Your task to perform on an android device: toggle pop-ups in chrome Image 0: 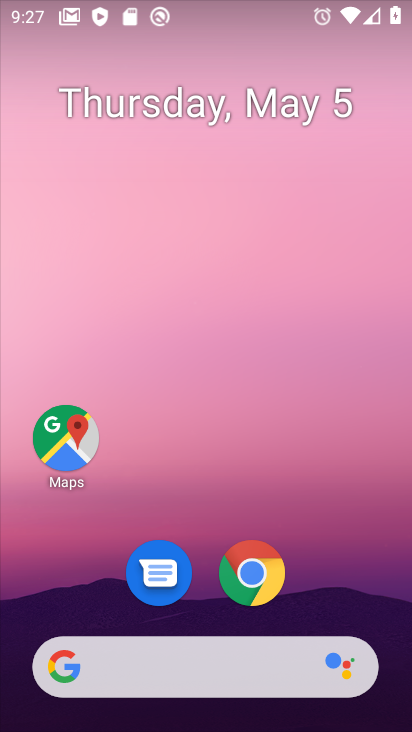
Step 0: click (240, 580)
Your task to perform on an android device: toggle pop-ups in chrome Image 1: 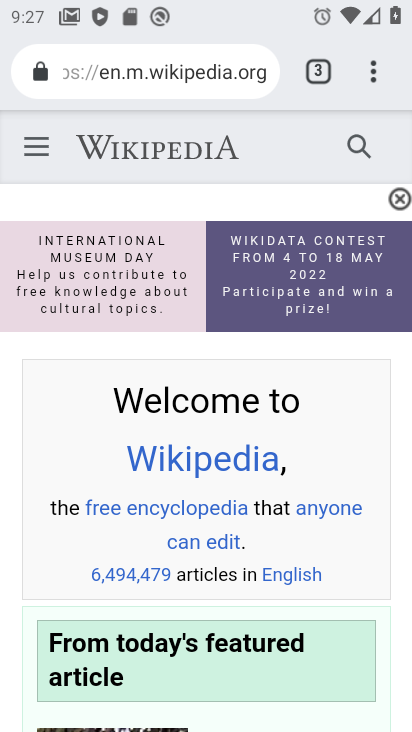
Step 1: drag from (377, 71) to (129, 558)
Your task to perform on an android device: toggle pop-ups in chrome Image 2: 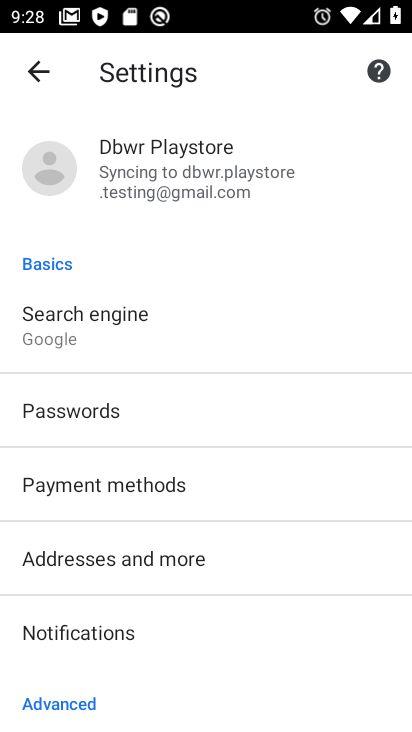
Step 2: drag from (293, 459) to (329, 128)
Your task to perform on an android device: toggle pop-ups in chrome Image 3: 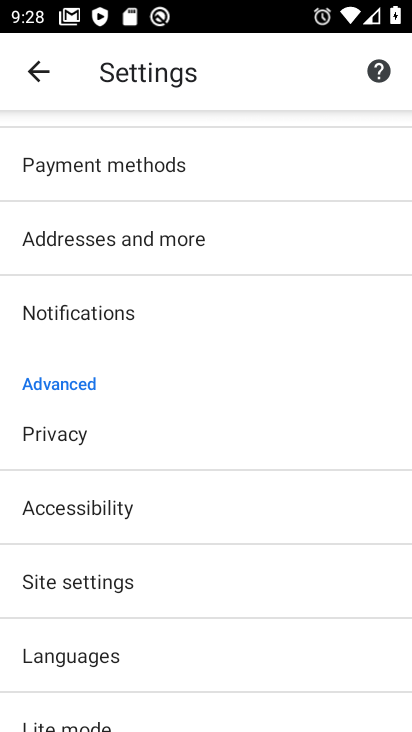
Step 3: click (124, 574)
Your task to perform on an android device: toggle pop-ups in chrome Image 4: 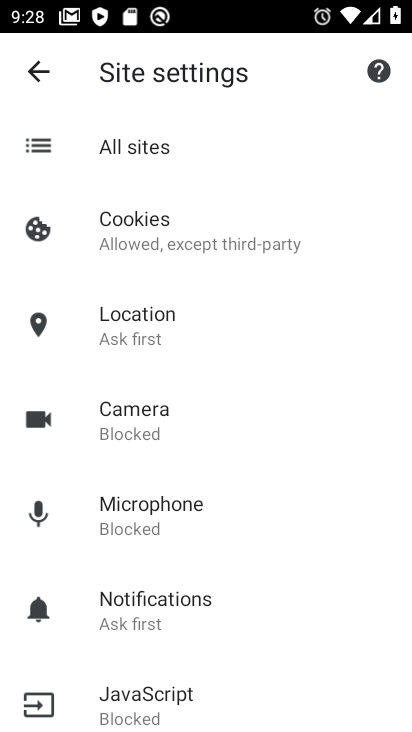
Step 4: drag from (139, 649) to (199, 190)
Your task to perform on an android device: toggle pop-ups in chrome Image 5: 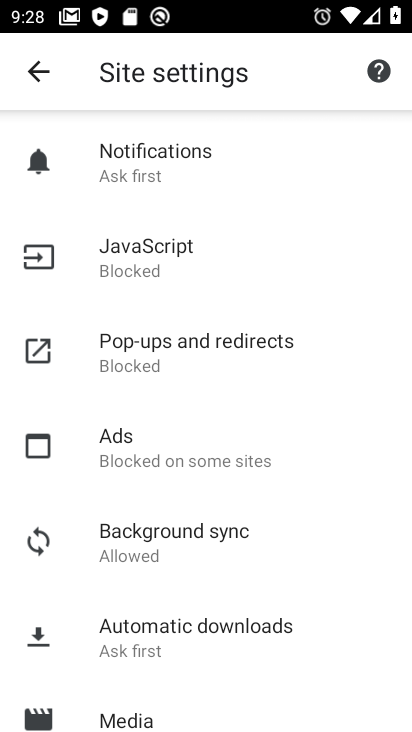
Step 5: click (180, 351)
Your task to perform on an android device: toggle pop-ups in chrome Image 6: 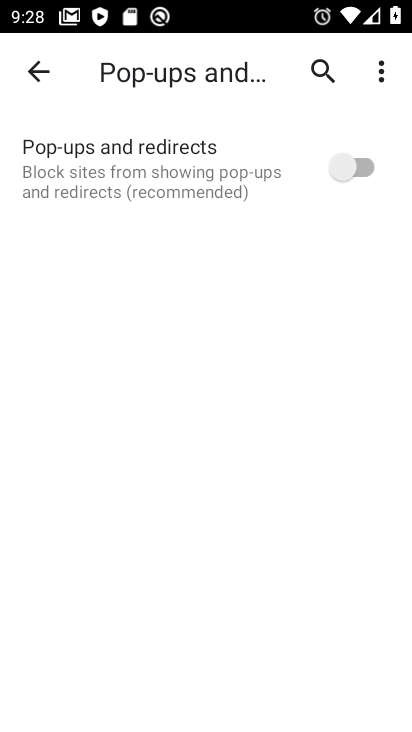
Step 6: click (343, 168)
Your task to perform on an android device: toggle pop-ups in chrome Image 7: 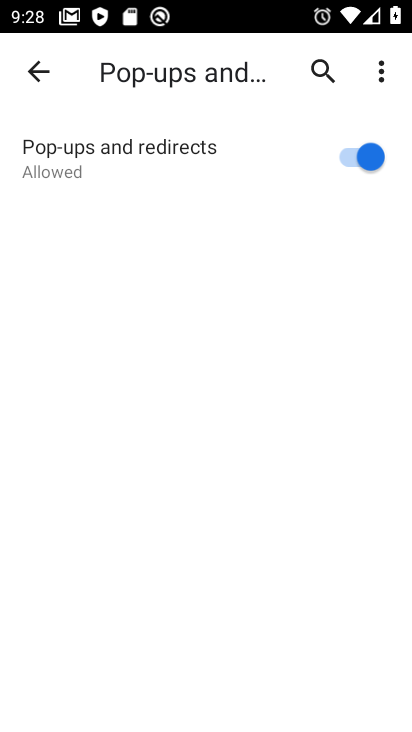
Step 7: task complete